Your task to perform on an android device: Go to Android settings Image 0: 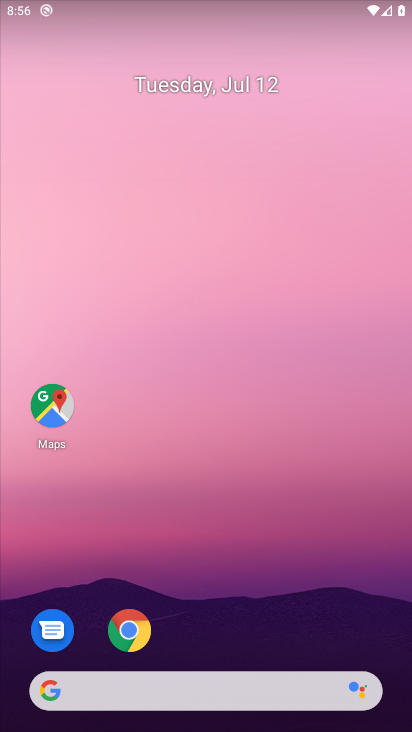
Step 0: press home button
Your task to perform on an android device: Go to Android settings Image 1: 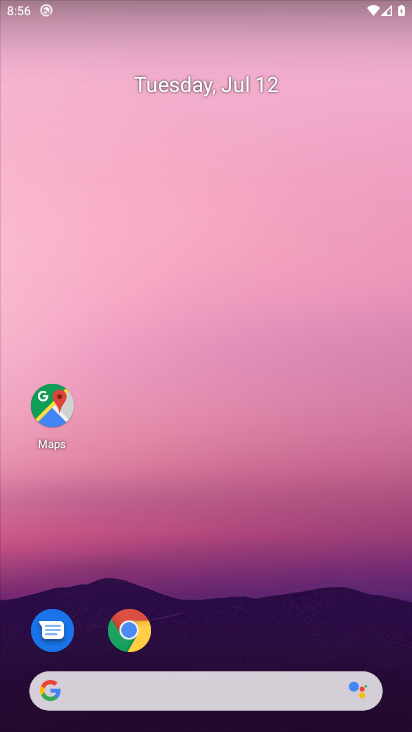
Step 1: drag from (213, 647) to (177, 27)
Your task to perform on an android device: Go to Android settings Image 2: 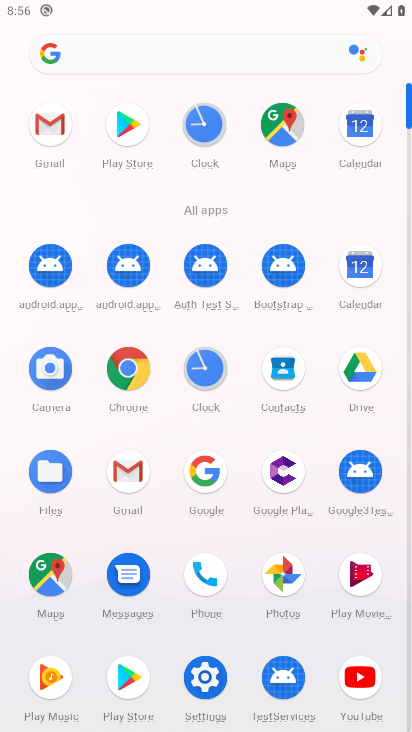
Step 2: click (201, 681)
Your task to perform on an android device: Go to Android settings Image 3: 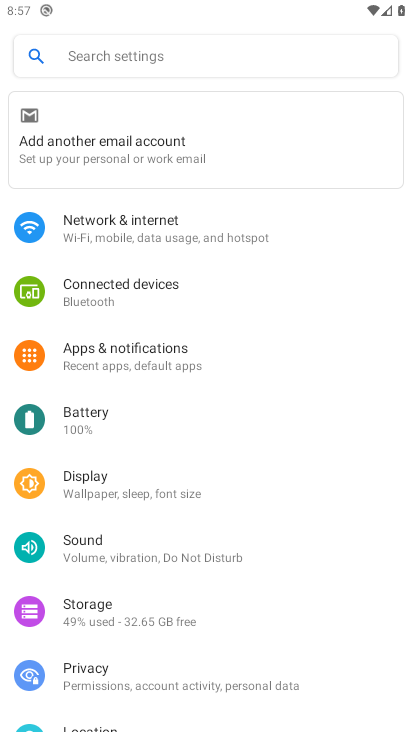
Step 3: task complete